Your task to perform on an android device: What's the weather today? Image 0: 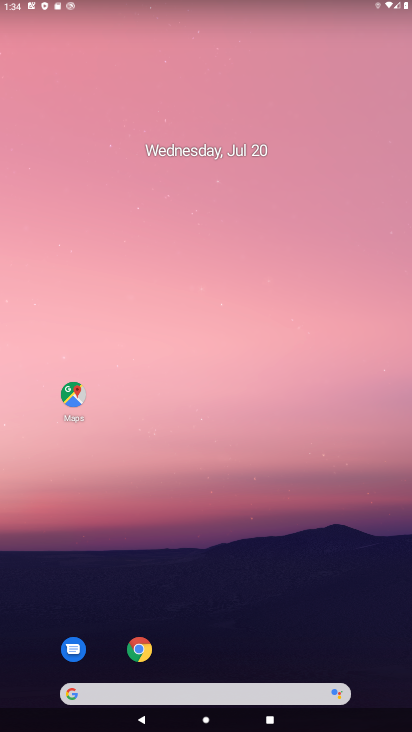
Step 0: press home button
Your task to perform on an android device: What's the weather today? Image 1: 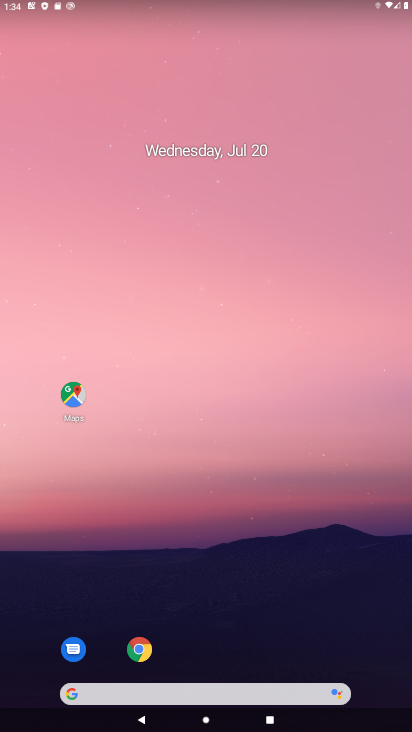
Step 1: click (129, 641)
Your task to perform on an android device: What's the weather today? Image 2: 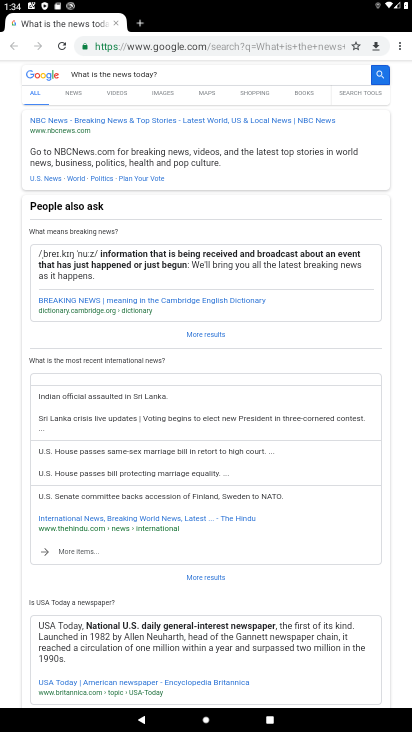
Step 2: click (198, 51)
Your task to perform on an android device: What's the weather today? Image 3: 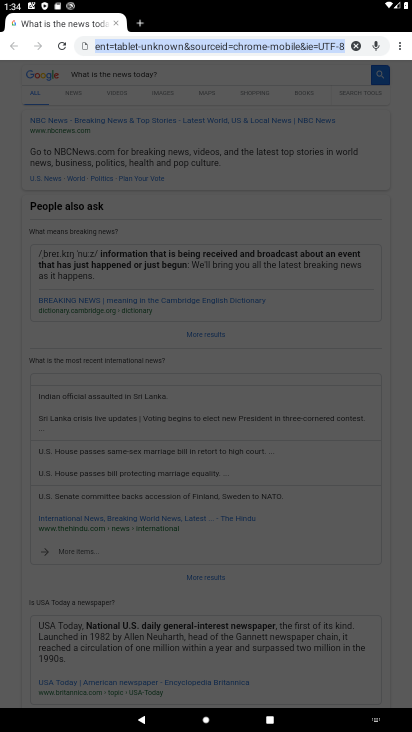
Step 3: type "What's the weather today?"
Your task to perform on an android device: What's the weather today? Image 4: 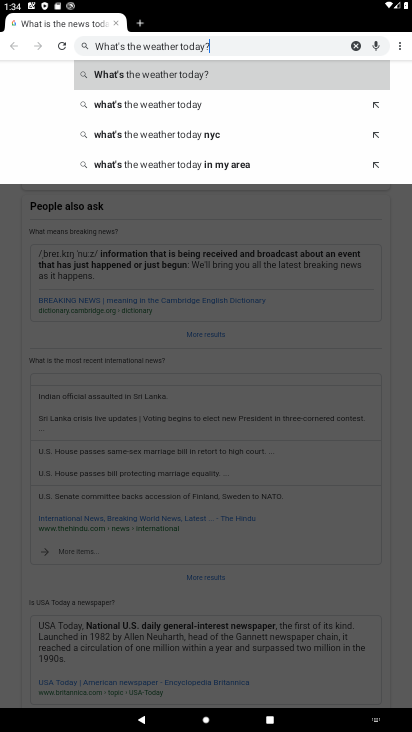
Step 4: type ""
Your task to perform on an android device: What's the weather today? Image 5: 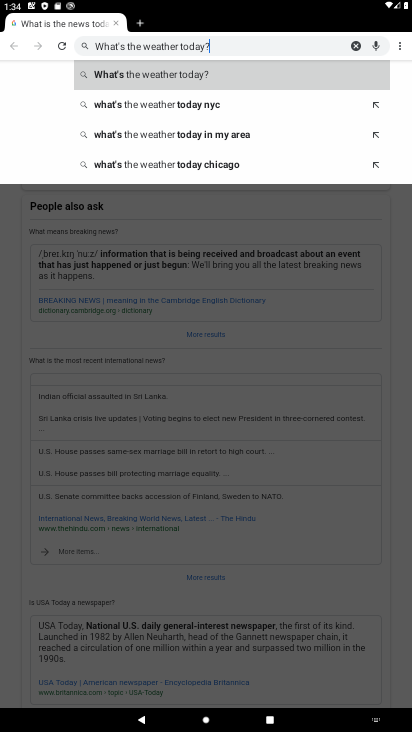
Step 5: click (222, 72)
Your task to perform on an android device: What's the weather today? Image 6: 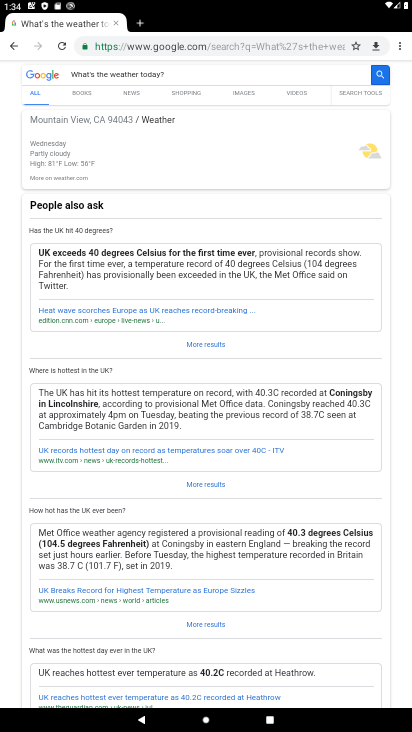
Step 6: task complete